Your task to perform on an android device: open sync settings in chrome Image 0: 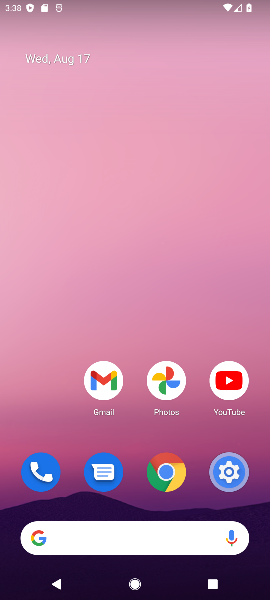
Step 0: click (167, 475)
Your task to perform on an android device: open sync settings in chrome Image 1: 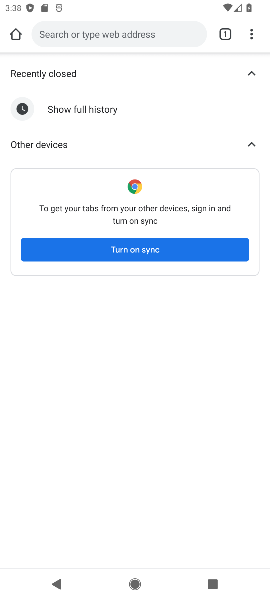
Step 1: click (255, 31)
Your task to perform on an android device: open sync settings in chrome Image 2: 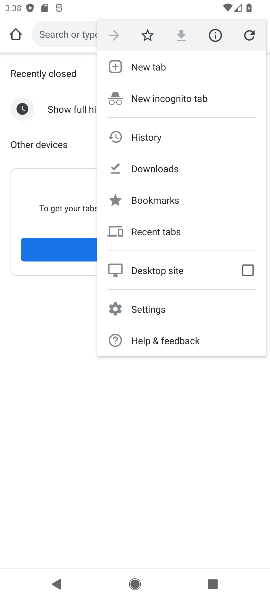
Step 2: click (169, 304)
Your task to perform on an android device: open sync settings in chrome Image 3: 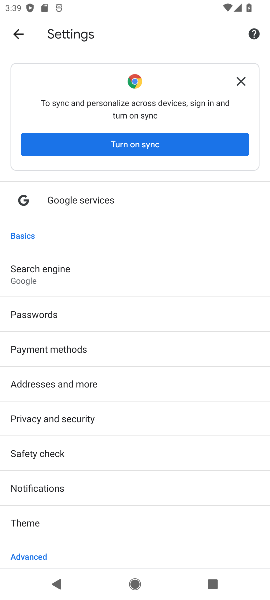
Step 3: drag from (115, 463) to (113, 250)
Your task to perform on an android device: open sync settings in chrome Image 4: 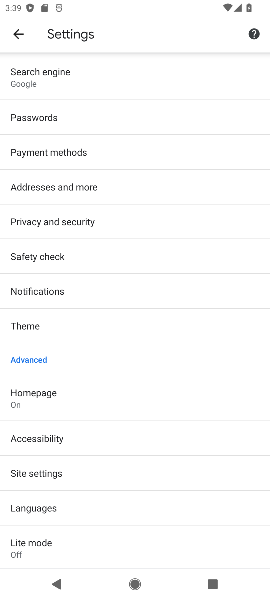
Step 4: drag from (103, 219) to (103, 468)
Your task to perform on an android device: open sync settings in chrome Image 5: 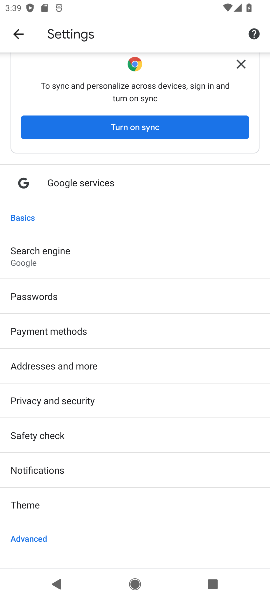
Step 5: click (140, 124)
Your task to perform on an android device: open sync settings in chrome Image 6: 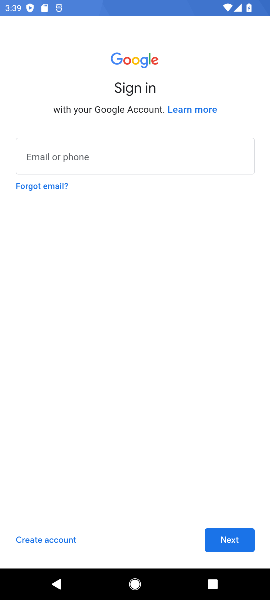
Step 6: click (231, 529)
Your task to perform on an android device: open sync settings in chrome Image 7: 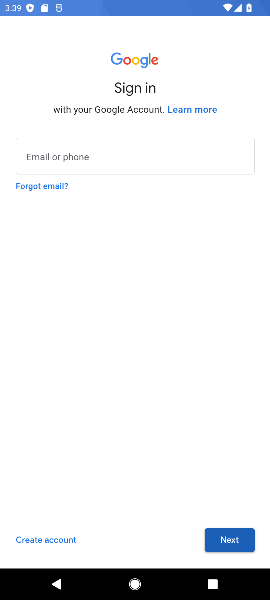
Step 7: task complete